Your task to perform on an android device: check battery use Image 0: 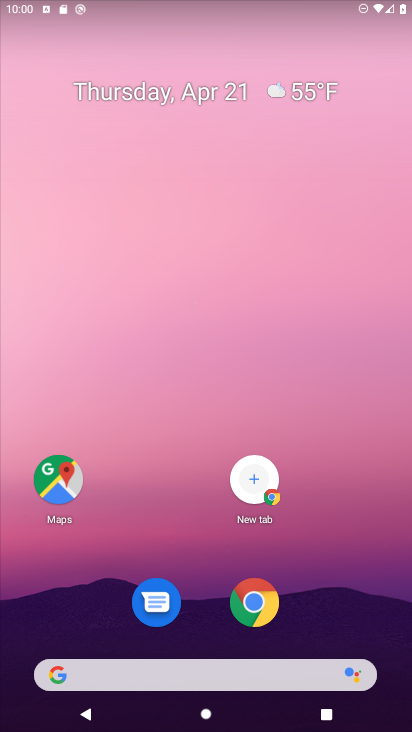
Step 0: drag from (202, 565) to (405, 526)
Your task to perform on an android device: check battery use Image 1: 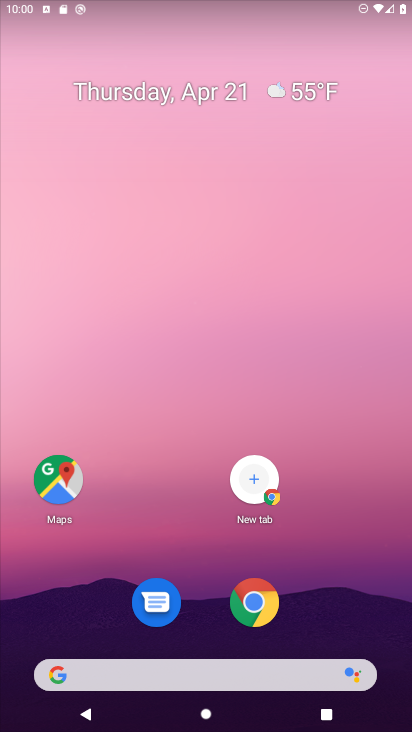
Step 1: drag from (205, 602) to (152, 82)
Your task to perform on an android device: check battery use Image 2: 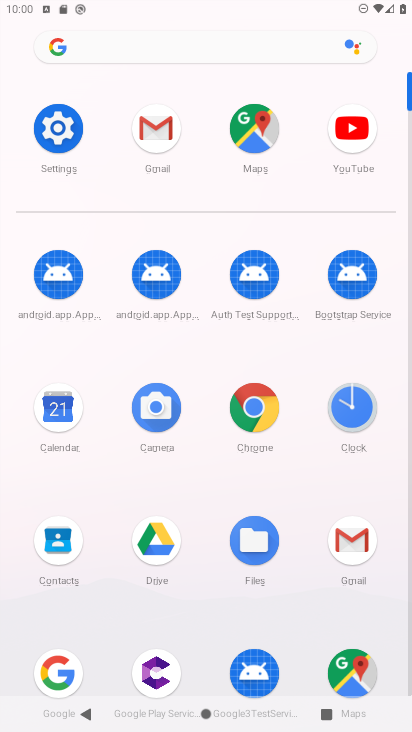
Step 2: click (64, 128)
Your task to perform on an android device: check battery use Image 3: 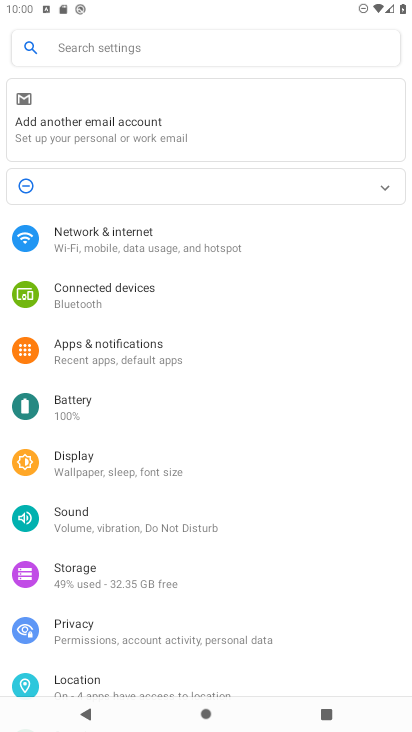
Step 3: click (64, 128)
Your task to perform on an android device: check battery use Image 4: 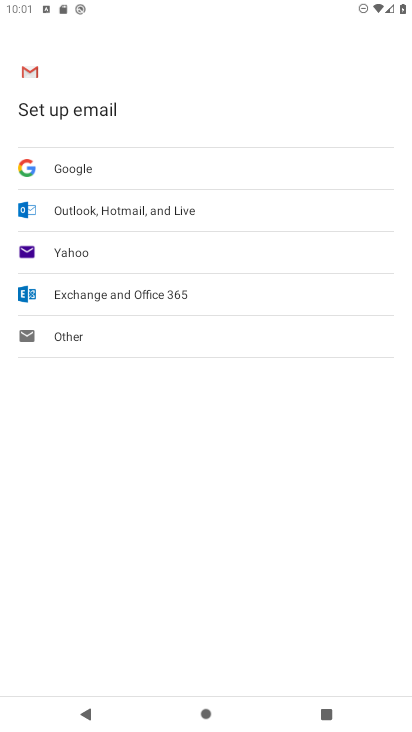
Step 4: press home button
Your task to perform on an android device: check battery use Image 5: 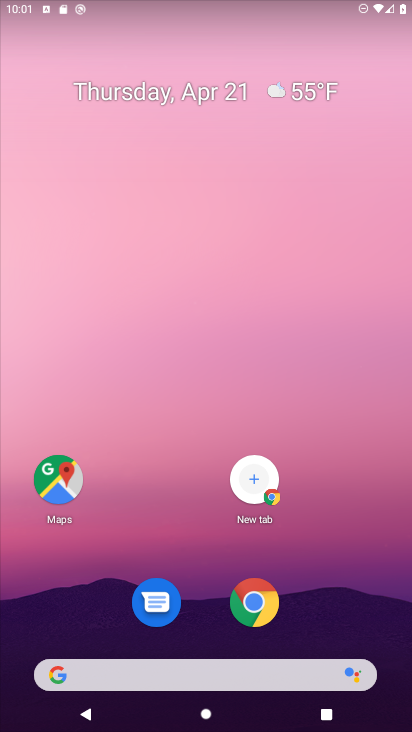
Step 5: drag from (194, 629) to (218, 213)
Your task to perform on an android device: check battery use Image 6: 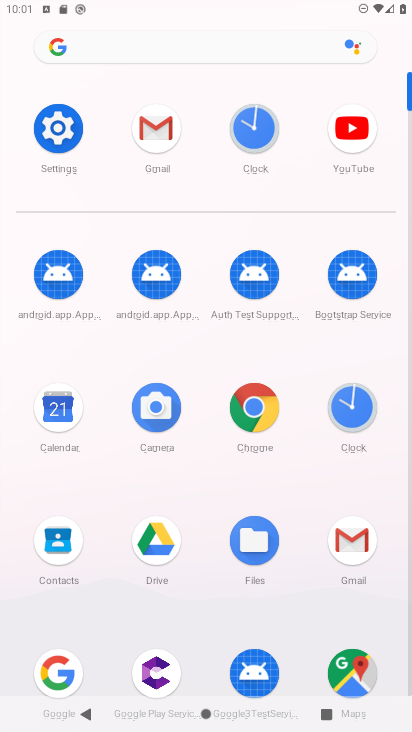
Step 6: click (49, 127)
Your task to perform on an android device: check battery use Image 7: 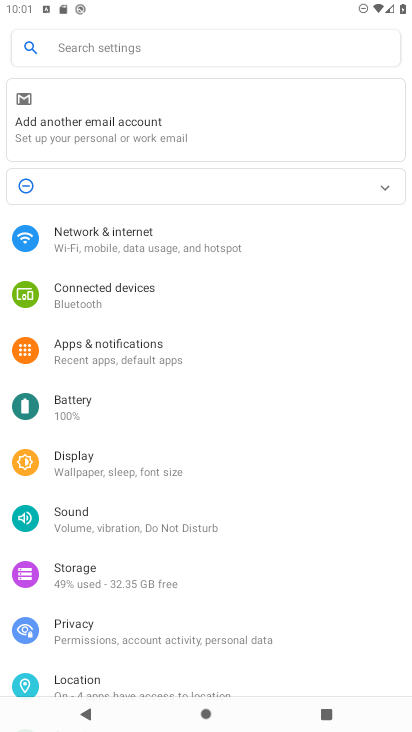
Step 7: drag from (108, 576) to (124, 244)
Your task to perform on an android device: check battery use Image 8: 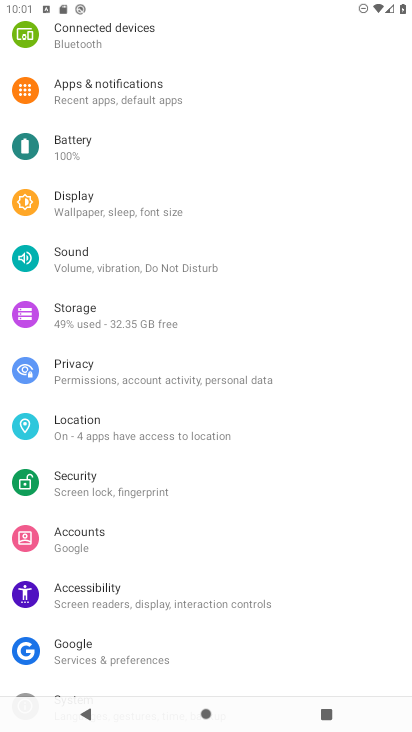
Step 8: drag from (118, 659) to (222, 156)
Your task to perform on an android device: check battery use Image 9: 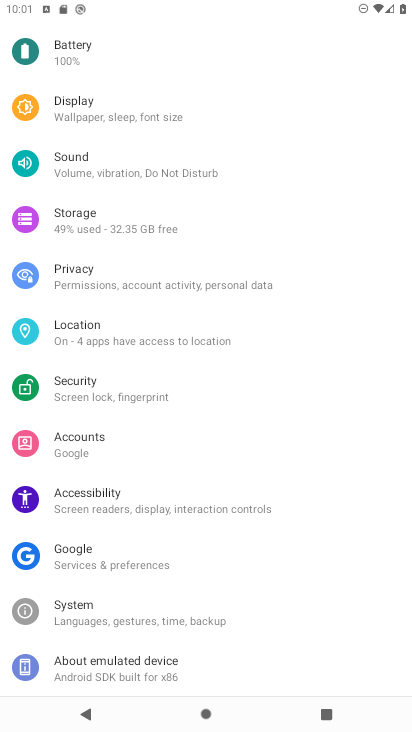
Step 9: click (89, 55)
Your task to perform on an android device: check battery use Image 10: 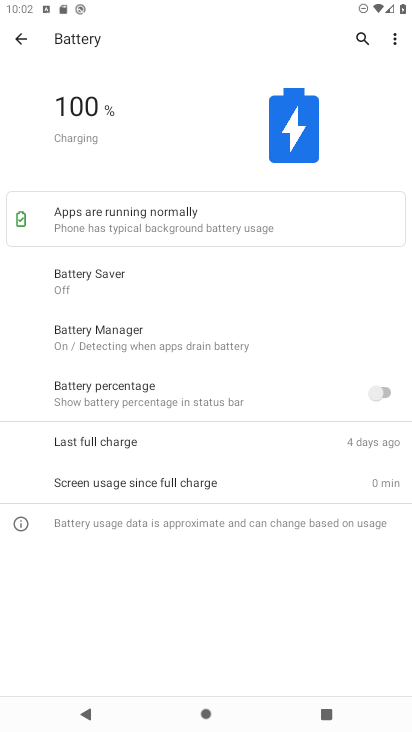
Step 10: click (396, 45)
Your task to perform on an android device: check battery use Image 11: 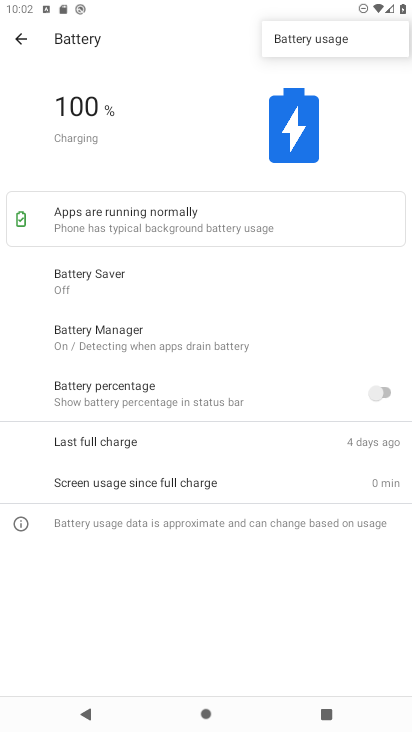
Step 11: click (396, 45)
Your task to perform on an android device: check battery use Image 12: 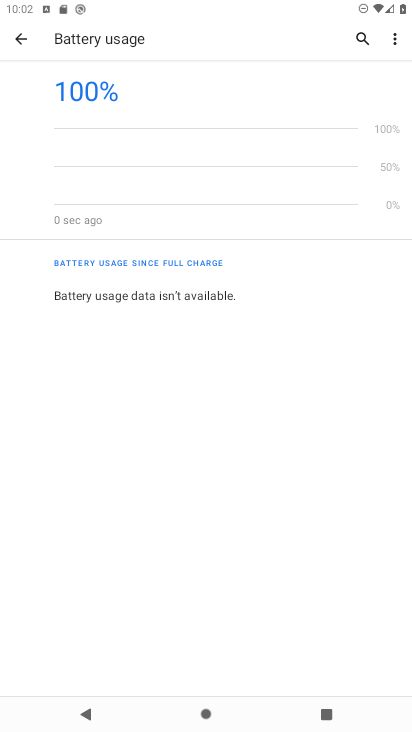
Step 12: task complete